Your task to perform on an android device: open chrome privacy settings Image 0: 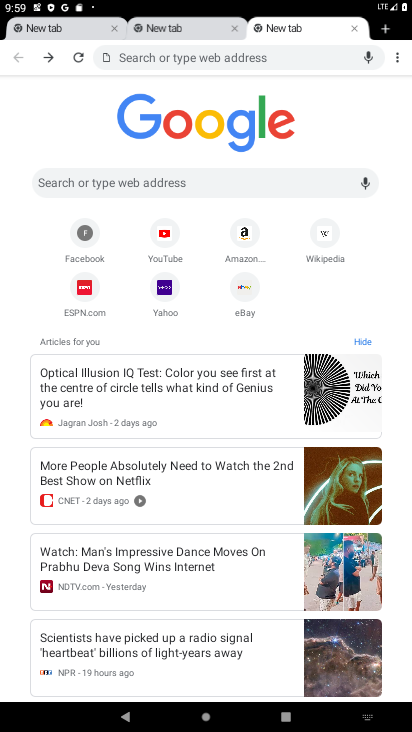
Step 0: click (396, 66)
Your task to perform on an android device: open chrome privacy settings Image 1: 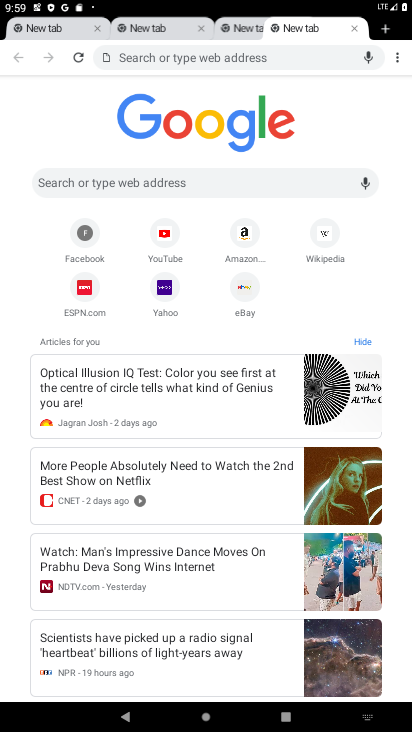
Step 1: click (394, 69)
Your task to perform on an android device: open chrome privacy settings Image 2: 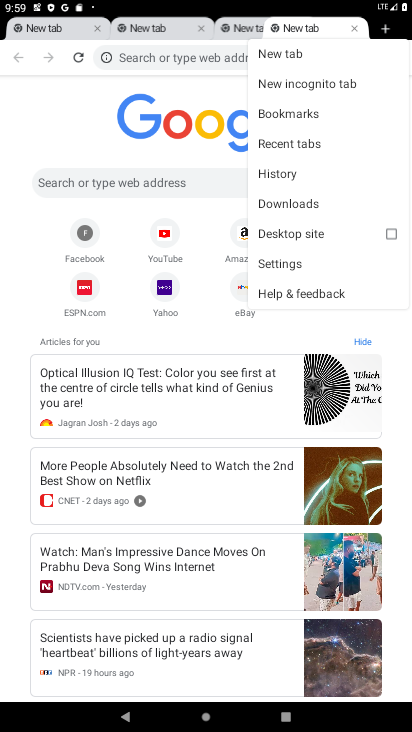
Step 2: press home button
Your task to perform on an android device: open chrome privacy settings Image 3: 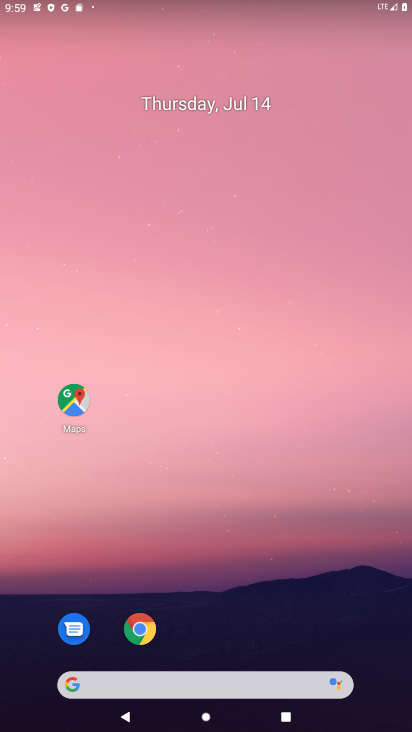
Step 3: click (137, 635)
Your task to perform on an android device: open chrome privacy settings Image 4: 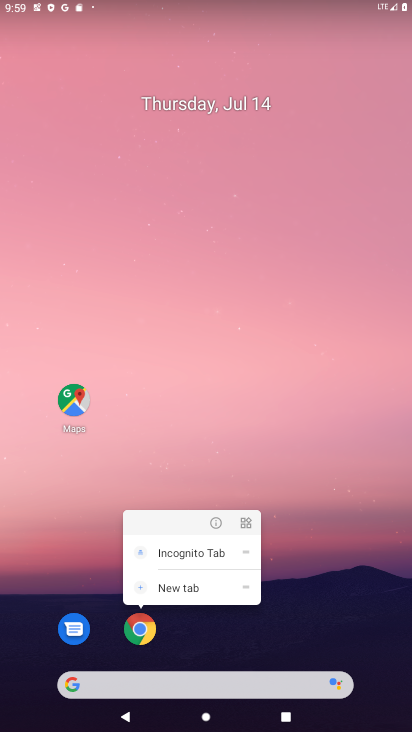
Step 4: click (141, 631)
Your task to perform on an android device: open chrome privacy settings Image 5: 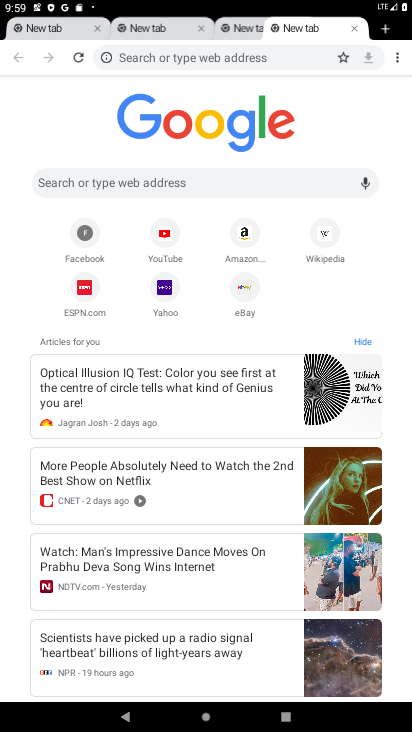
Step 5: click (401, 59)
Your task to perform on an android device: open chrome privacy settings Image 6: 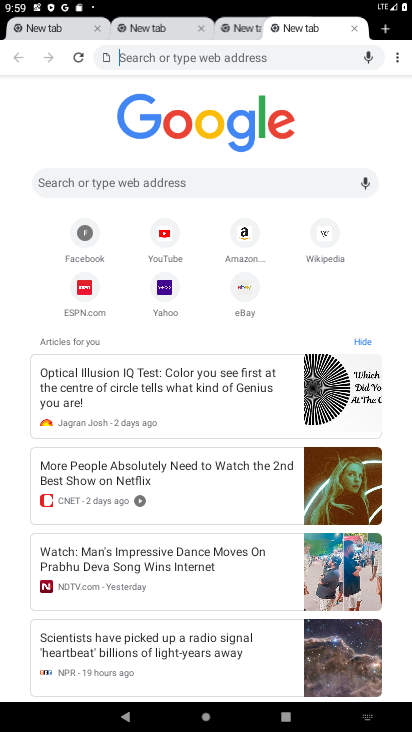
Step 6: click (401, 59)
Your task to perform on an android device: open chrome privacy settings Image 7: 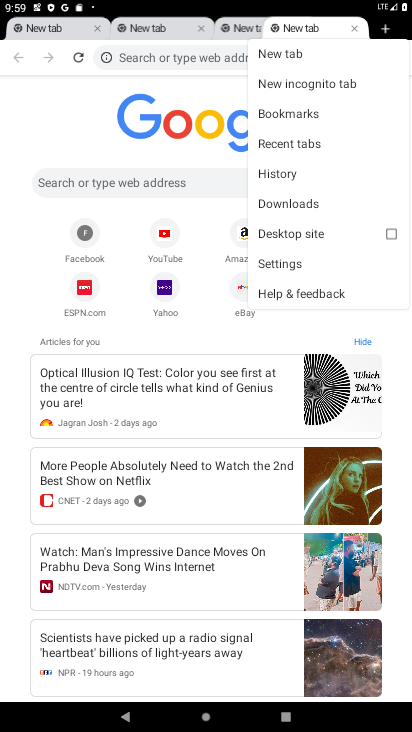
Step 7: click (316, 259)
Your task to perform on an android device: open chrome privacy settings Image 8: 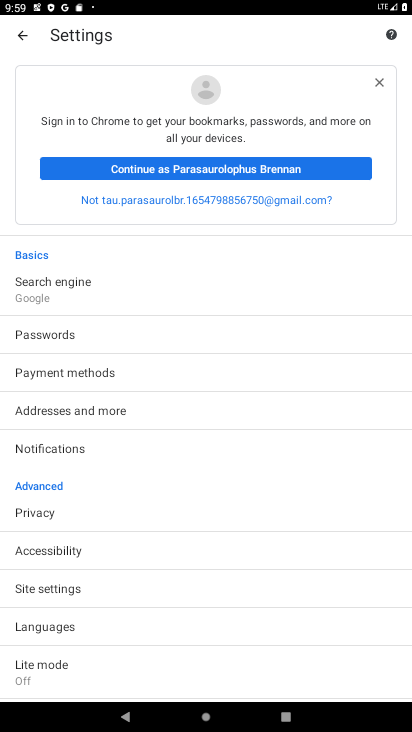
Step 8: task complete